Your task to perform on an android device: toggle airplane mode Image 0: 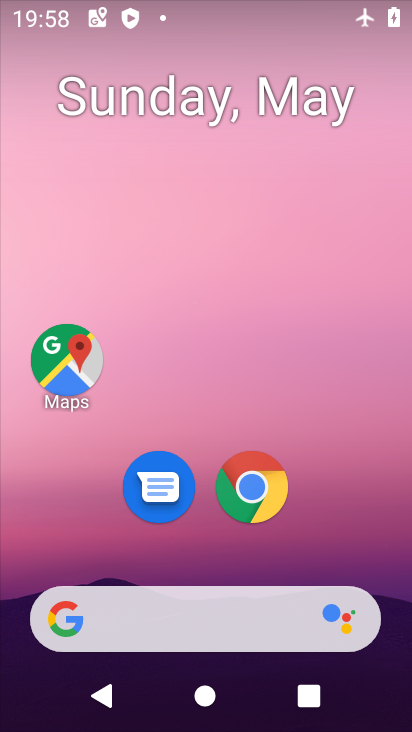
Step 0: drag from (366, 550) to (348, 120)
Your task to perform on an android device: toggle airplane mode Image 1: 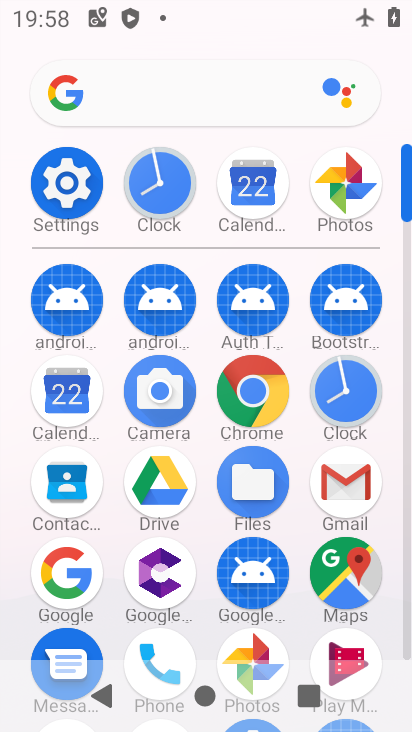
Step 1: click (72, 202)
Your task to perform on an android device: toggle airplane mode Image 2: 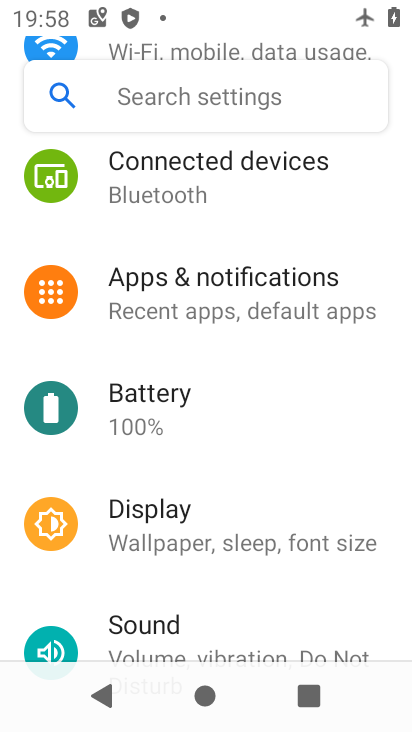
Step 2: drag from (354, 488) to (359, 375)
Your task to perform on an android device: toggle airplane mode Image 3: 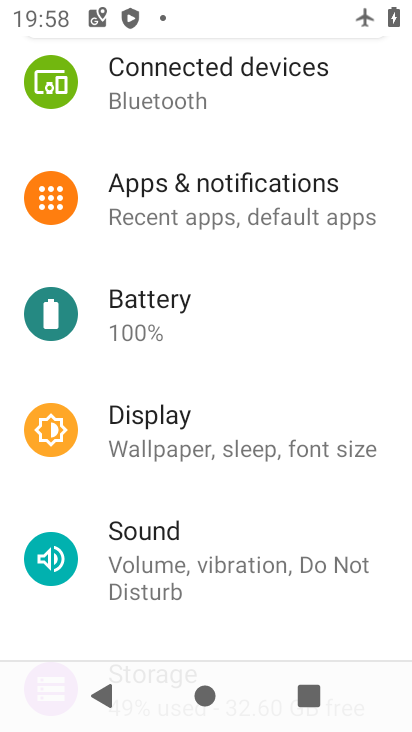
Step 3: drag from (351, 619) to (353, 452)
Your task to perform on an android device: toggle airplane mode Image 4: 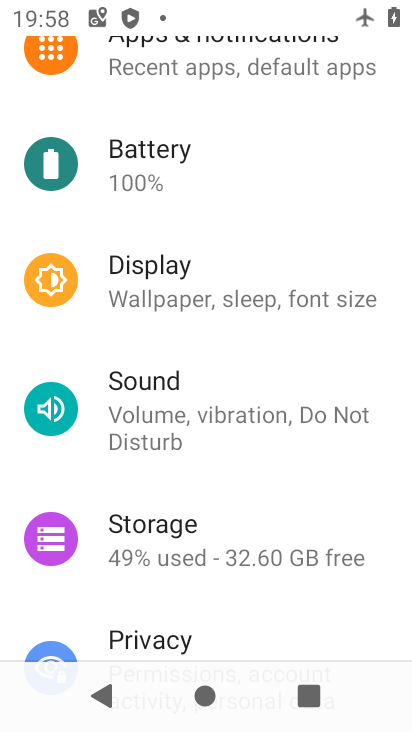
Step 4: drag from (353, 620) to (355, 528)
Your task to perform on an android device: toggle airplane mode Image 5: 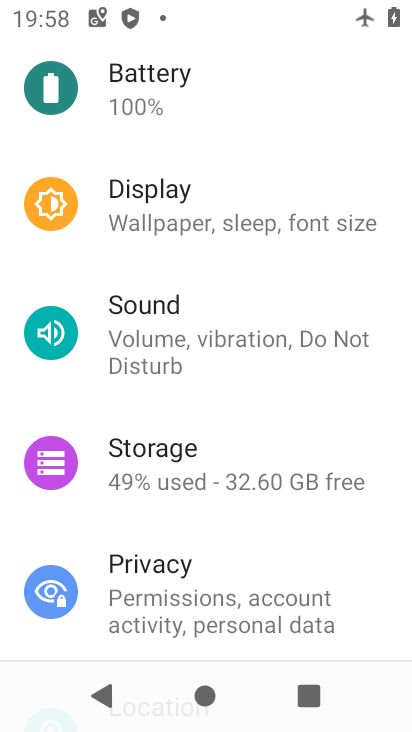
Step 5: drag from (374, 622) to (376, 481)
Your task to perform on an android device: toggle airplane mode Image 6: 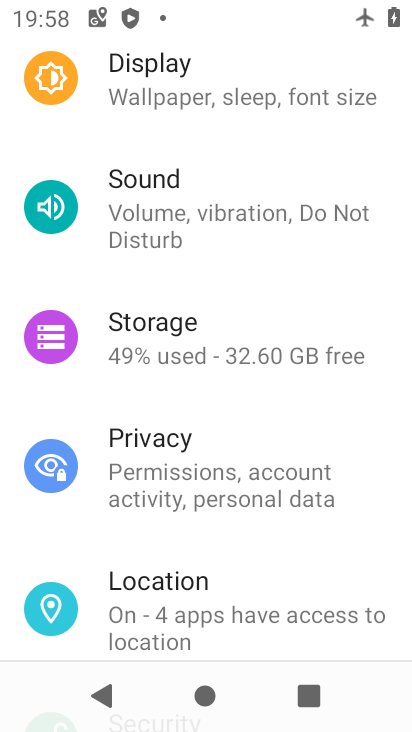
Step 6: drag from (365, 643) to (364, 499)
Your task to perform on an android device: toggle airplane mode Image 7: 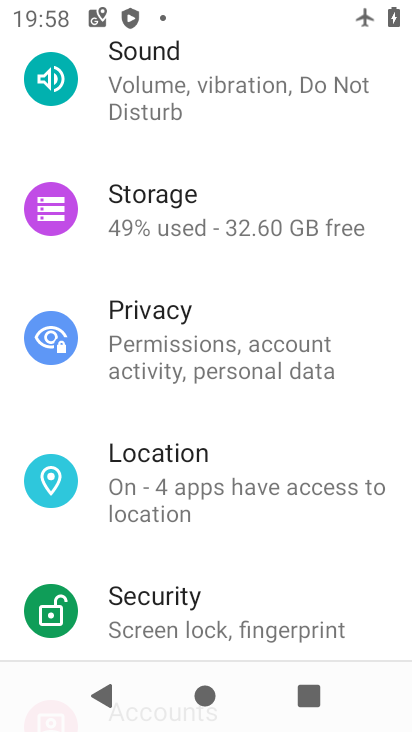
Step 7: drag from (349, 601) to (348, 442)
Your task to perform on an android device: toggle airplane mode Image 8: 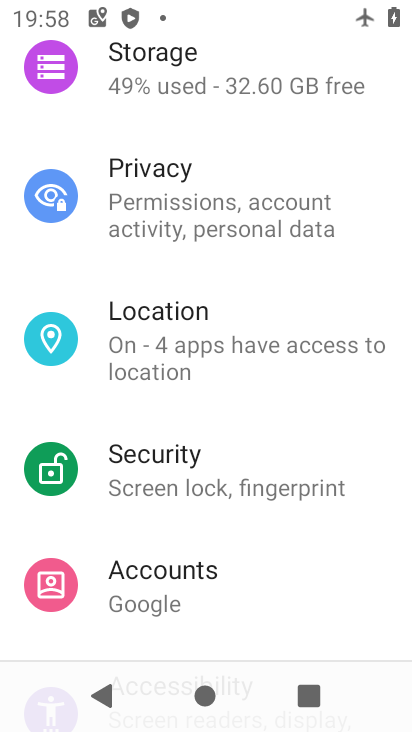
Step 8: drag from (341, 590) to (342, 451)
Your task to perform on an android device: toggle airplane mode Image 9: 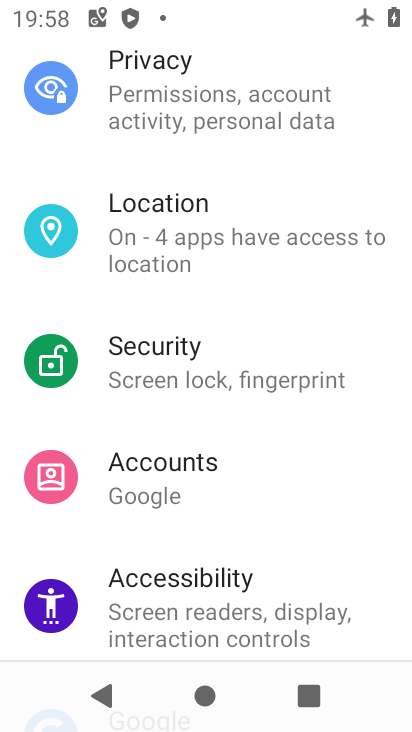
Step 9: drag from (329, 652) to (326, 514)
Your task to perform on an android device: toggle airplane mode Image 10: 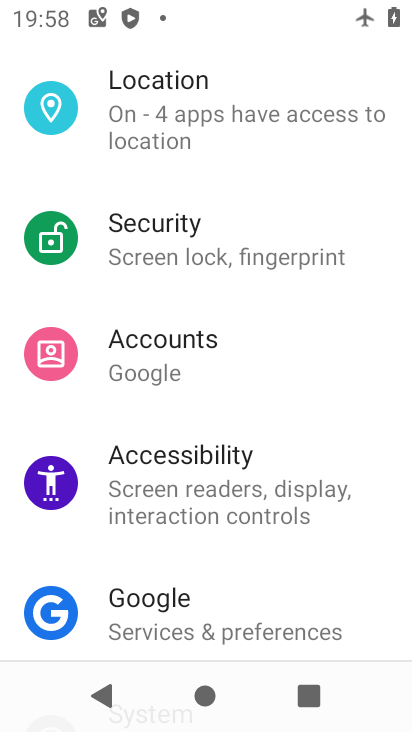
Step 10: drag from (337, 593) to (341, 531)
Your task to perform on an android device: toggle airplane mode Image 11: 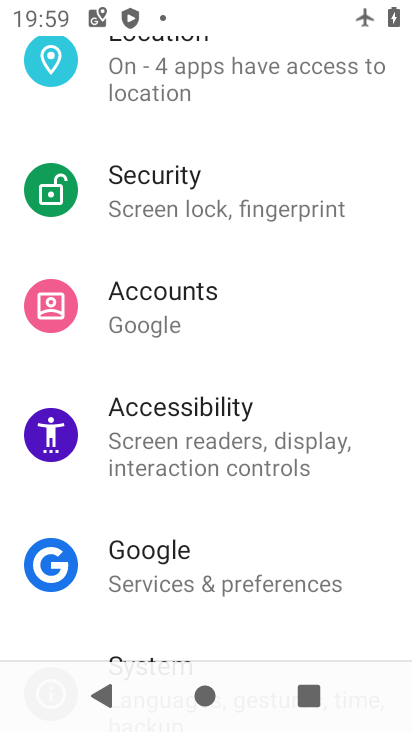
Step 11: drag from (360, 377) to (362, 502)
Your task to perform on an android device: toggle airplane mode Image 12: 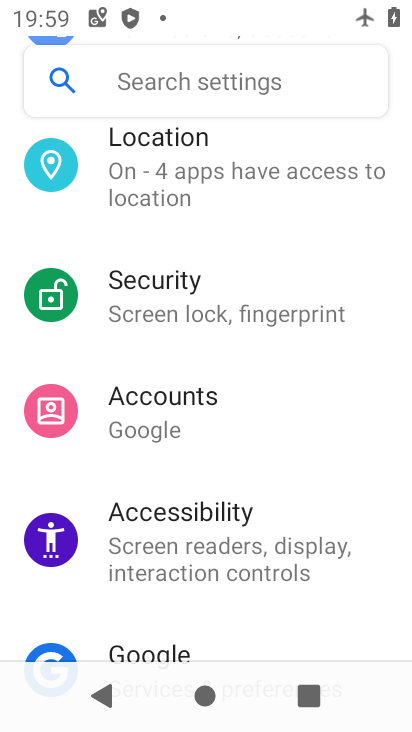
Step 12: drag from (372, 379) to (369, 498)
Your task to perform on an android device: toggle airplane mode Image 13: 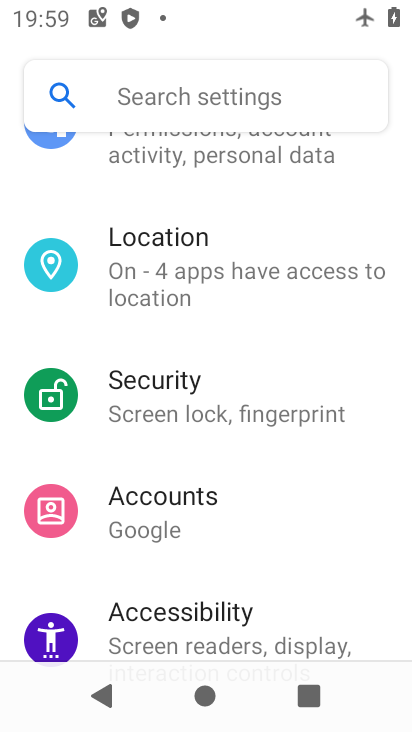
Step 13: drag from (374, 346) to (381, 453)
Your task to perform on an android device: toggle airplane mode Image 14: 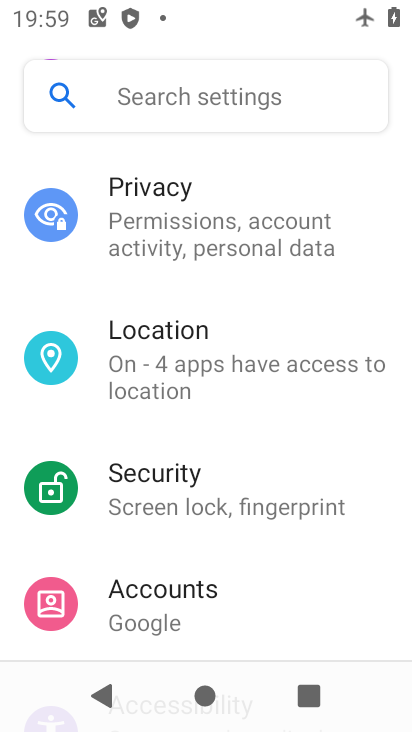
Step 14: drag from (369, 307) to (362, 439)
Your task to perform on an android device: toggle airplane mode Image 15: 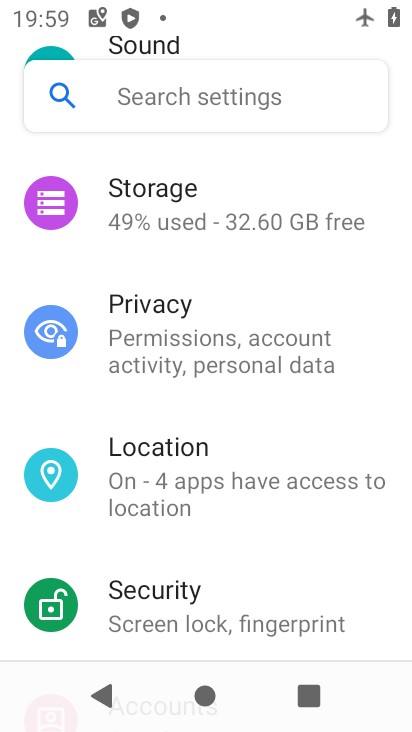
Step 15: drag from (362, 300) to (360, 424)
Your task to perform on an android device: toggle airplane mode Image 16: 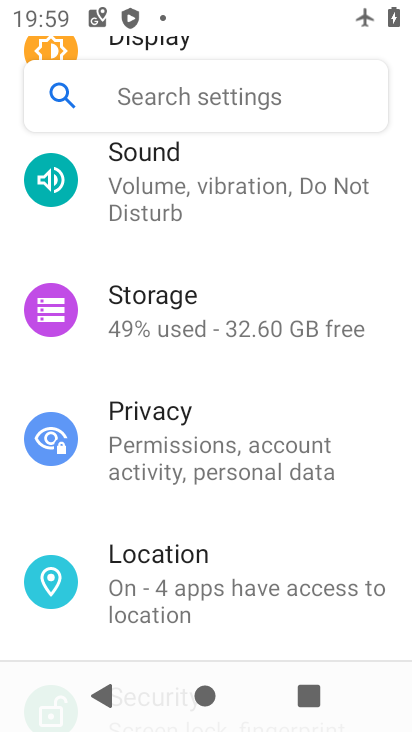
Step 16: drag from (370, 277) to (378, 387)
Your task to perform on an android device: toggle airplane mode Image 17: 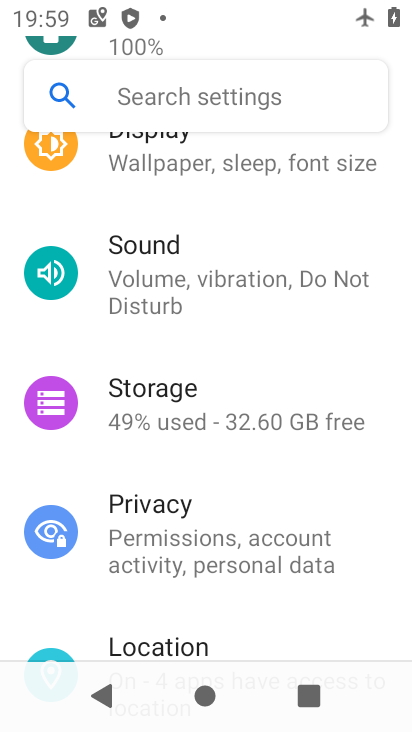
Step 17: drag from (386, 253) to (383, 356)
Your task to perform on an android device: toggle airplane mode Image 18: 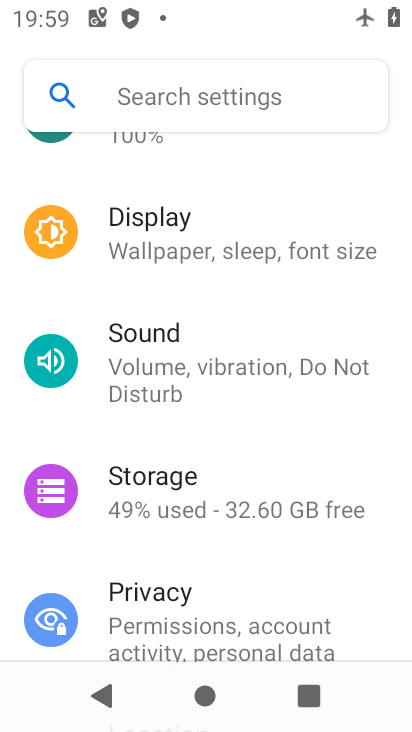
Step 18: drag from (385, 231) to (385, 320)
Your task to perform on an android device: toggle airplane mode Image 19: 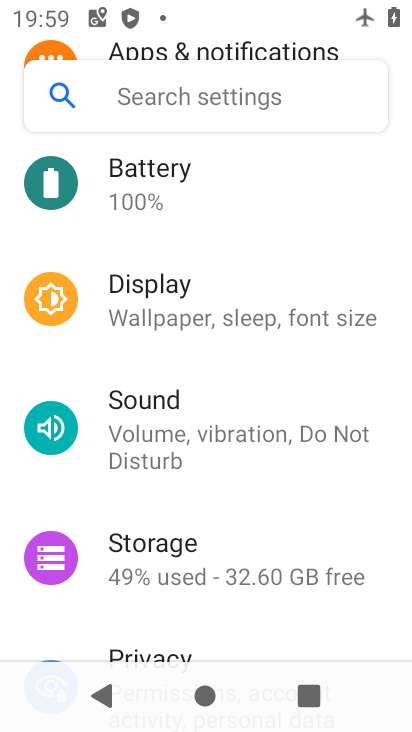
Step 19: drag from (373, 232) to (376, 362)
Your task to perform on an android device: toggle airplane mode Image 20: 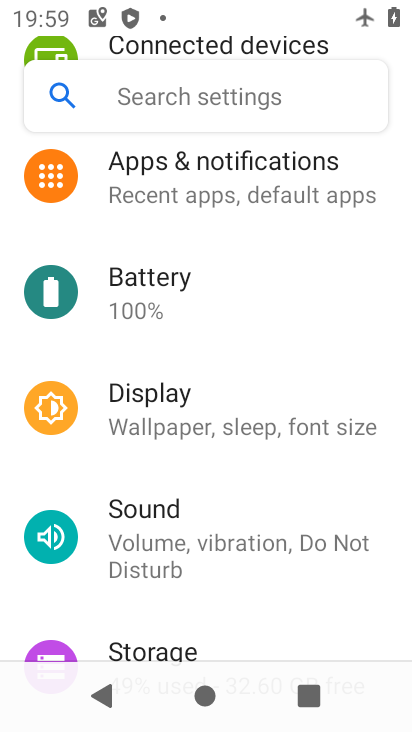
Step 20: drag from (358, 220) to (353, 388)
Your task to perform on an android device: toggle airplane mode Image 21: 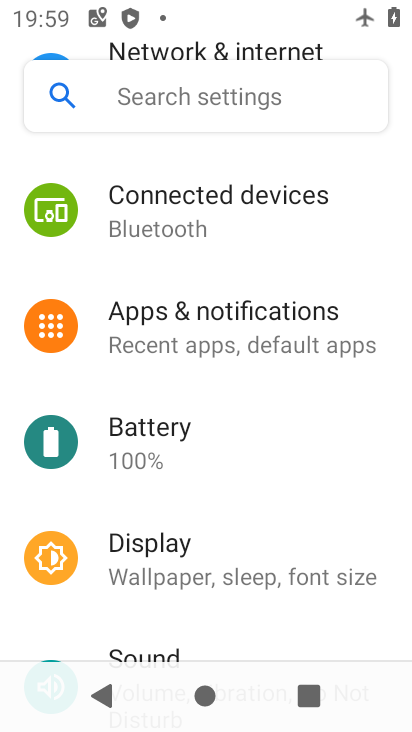
Step 21: drag from (363, 194) to (363, 398)
Your task to perform on an android device: toggle airplane mode Image 22: 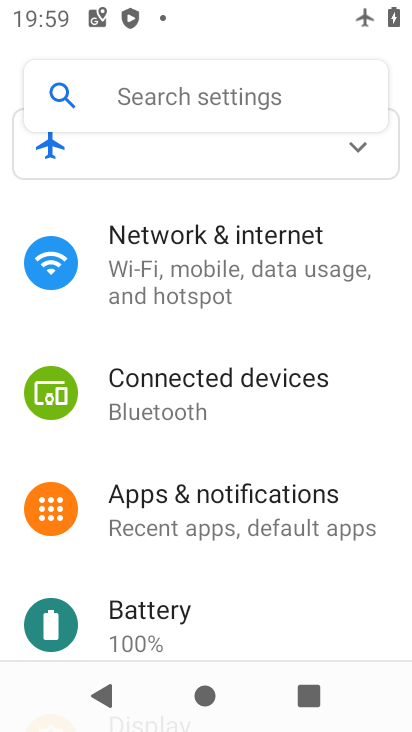
Step 22: click (319, 289)
Your task to perform on an android device: toggle airplane mode Image 23: 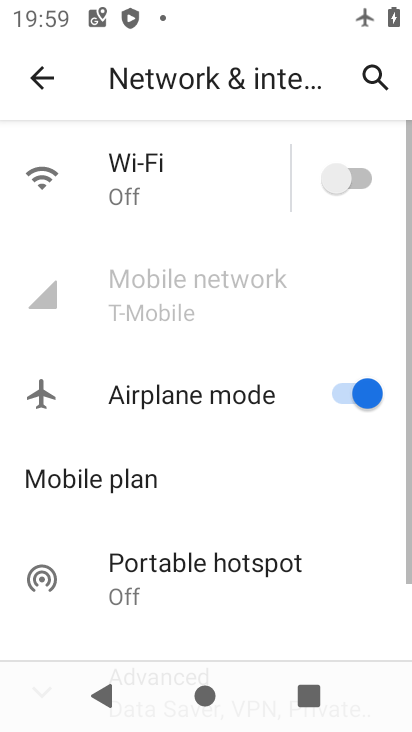
Step 23: click (347, 395)
Your task to perform on an android device: toggle airplane mode Image 24: 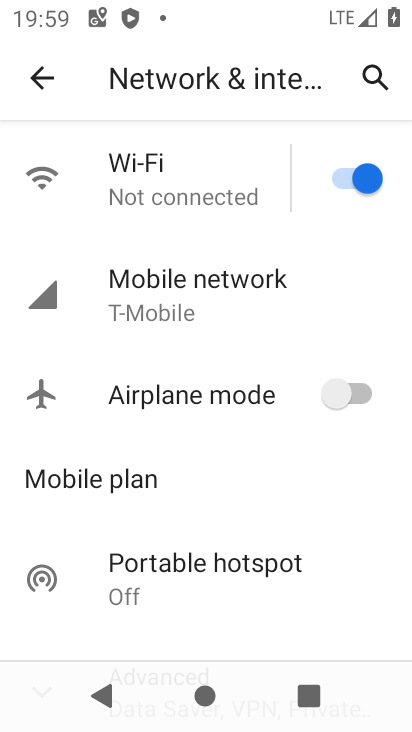
Step 24: task complete